Your task to perform on an android device: change notifications settings Image 0: 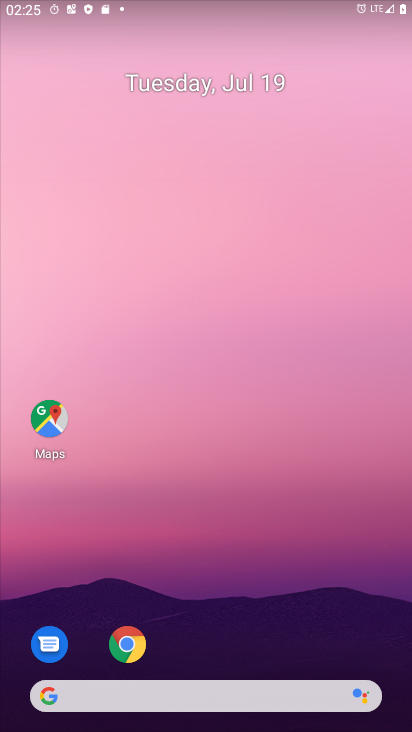
Step 0: drag from (216, 725) to (201, 129)
Your task to perform on an android device: change notifications settings Image 1: 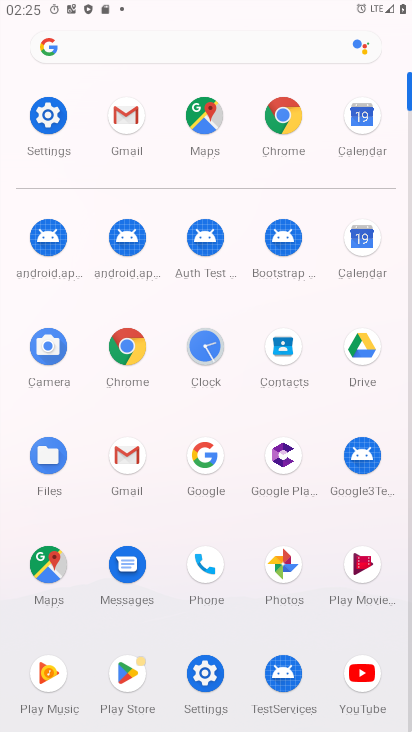
Step 1: click (51, 120)
Your task to perform on an android device: change notifications settings Image 2: 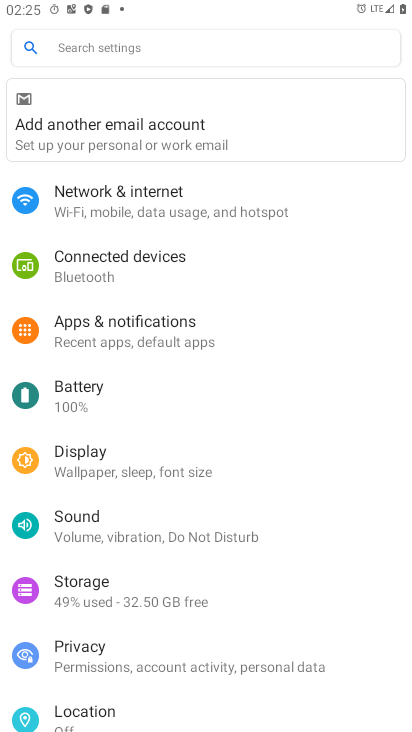
Step 2: click (142, 334)
Your task to perform on an android device: change notifications settings Image 3: 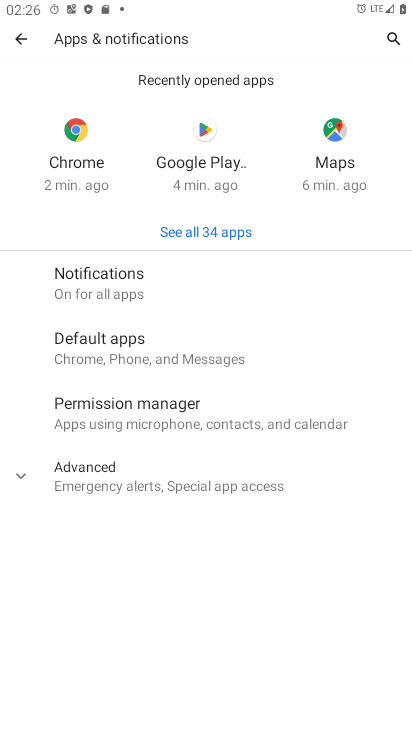
Step 3: click (95, 290)
Your task to perform on an android device: change notifications settings Image 4: 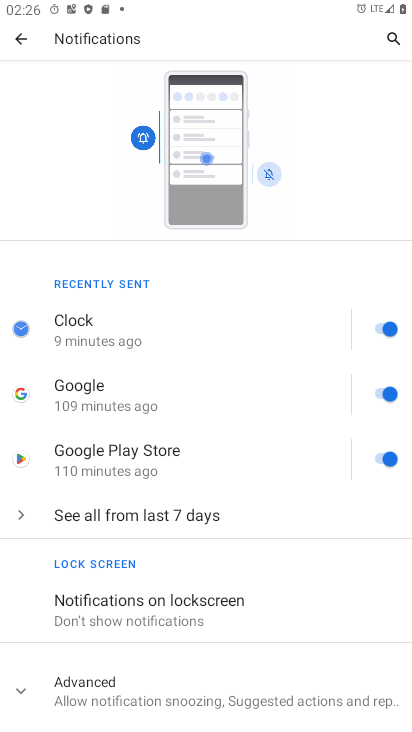
Step 4: click (183, 616)
Your task to perform on an android device: change notifications settings Image 5: 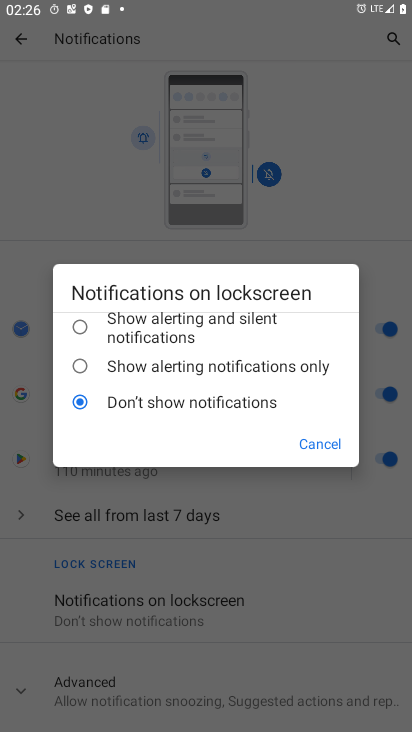
Step 5: click (95, 363)
Your task to perform on an android device: change notifications settings Image 6: 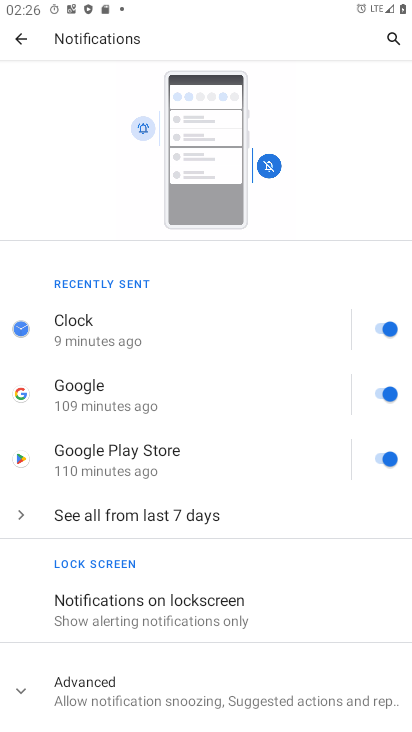
Step 6: task complete